Your task to perform on an android device: search for starred emails in the gmail app Image 0: 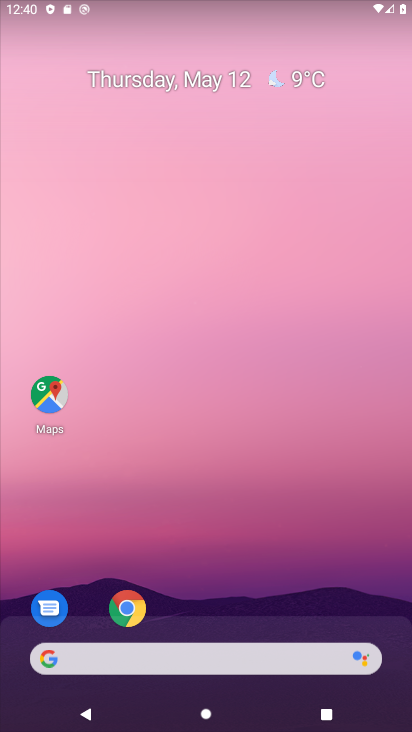
Step 0: drag from (233, 620) to (278, 0)
Your task to perform on an android device: search for starred emails in the gmail app Image 1: 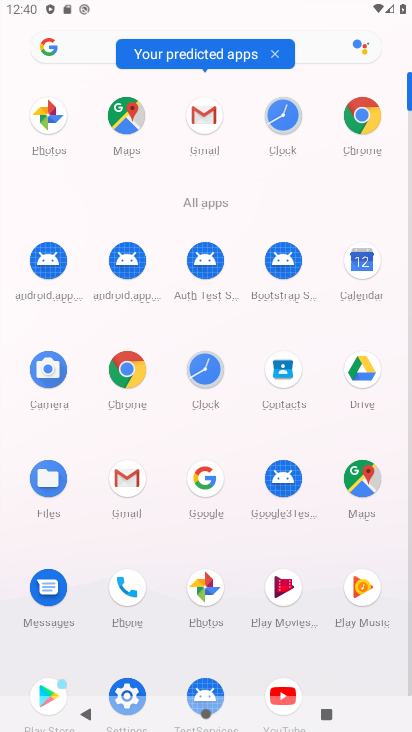
Step 1: click (121, 478)
Your task to perform on an android device: search for starred emails in the gmail app Image 2: 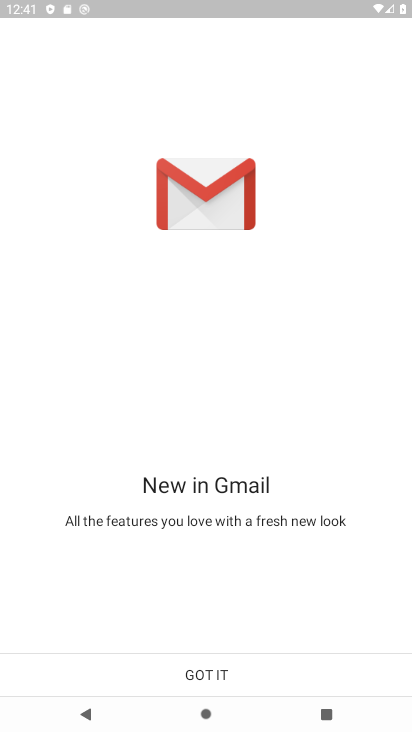
Step 2: click (154, 661)
Your task to perform on an android device: search for starred emails in the gmail app Image 3: 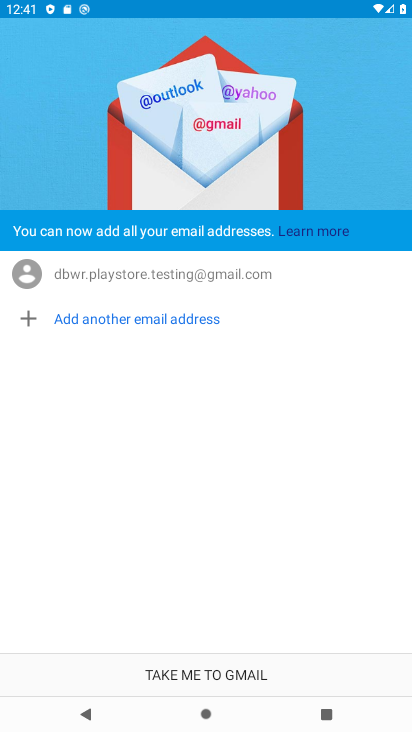
Step 3: click (150, 662)
Your task to perform on an android device: search for starred emails in the gmail app Image 4: 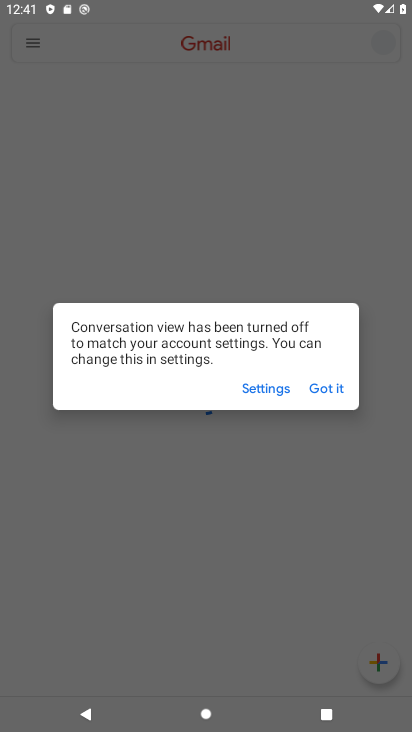
Step 4: click (328, 383)
Your task to perform on an android device: search for starred emails in the gmail app Image 5: 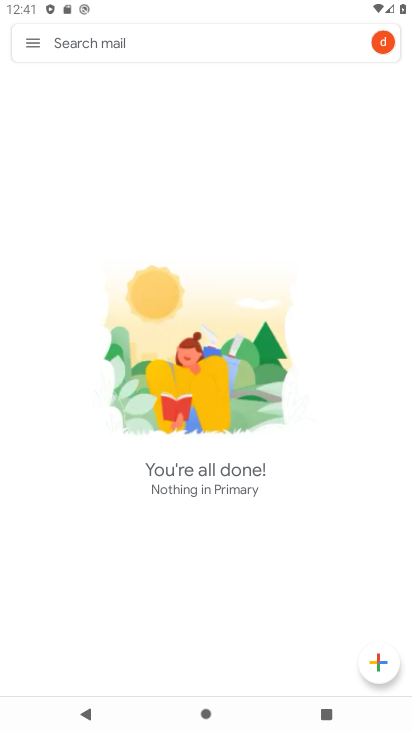
Step 5: click (35, 42)
Your task to perform on an android device: search for starred emails in the gmail app Image 6: 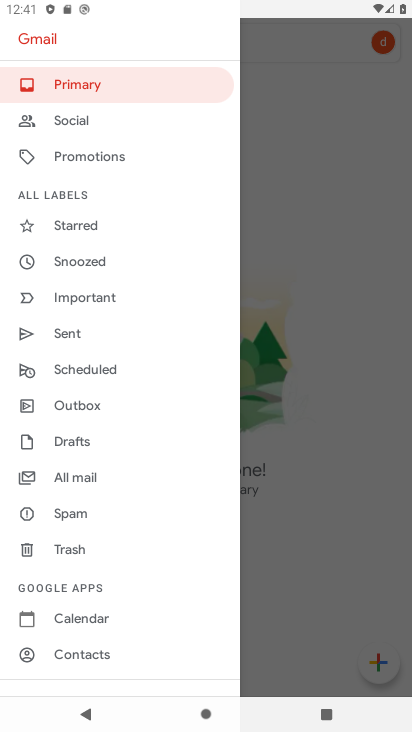
Step 6: click (94, 217)
Your task to perform on an android device: search for starred emails in the gmail app Image 7: 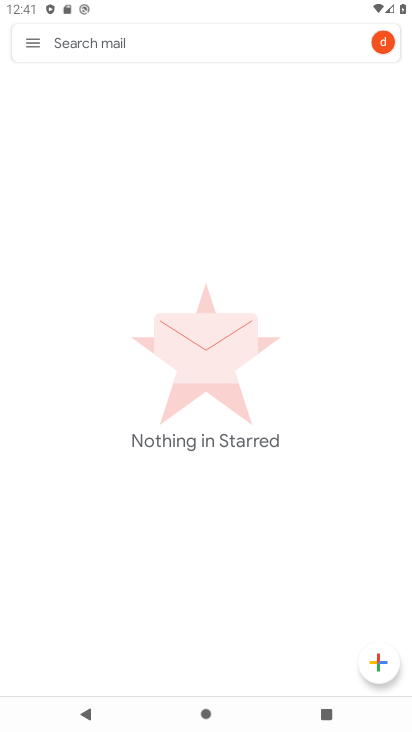
Step 7: task complete